Your task to perform on an android device: Open Google Chrome Image 0: 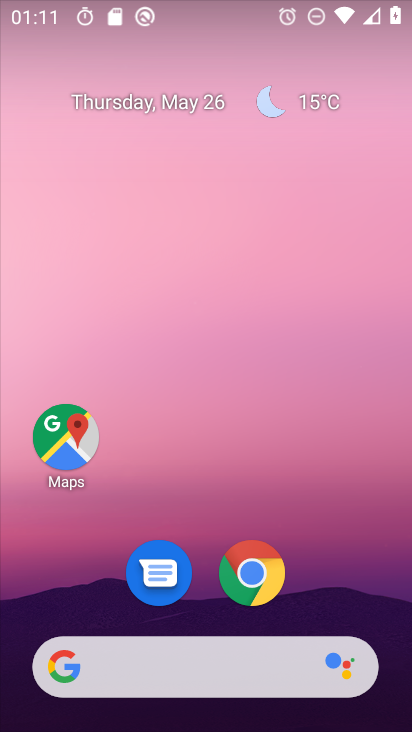
Step 0: click (253, 576)
Your task to perform on an android device: Open Google Chrome Image 1: 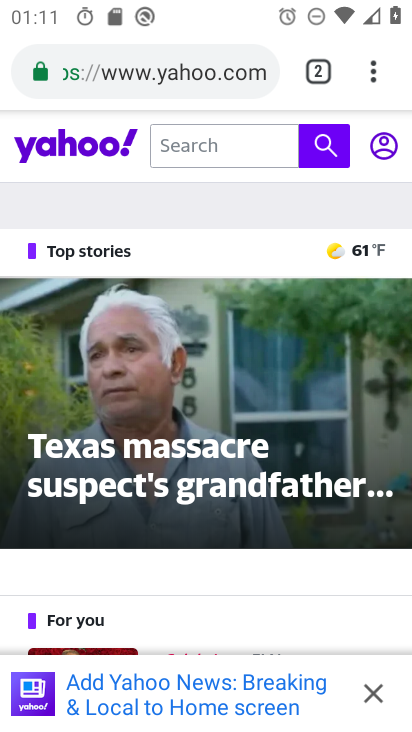
Step 1: task complete